Your task to perform on an android device: all mails in gmail Image 0: 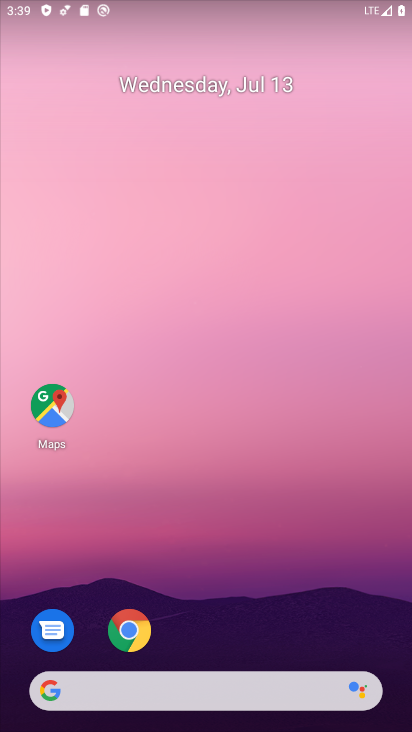
Step 0: drag from (288, 536) to (234, 110)
Your task to perform on an android device: all mails in gmail Image 1: 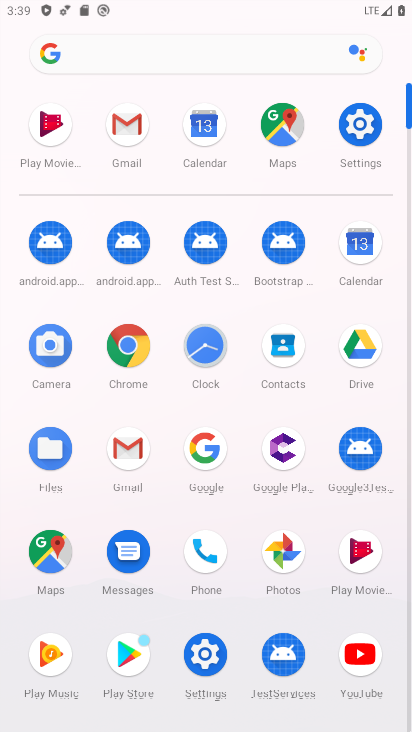
Step 1: click (126, 124)
Your task to perform on an android device: all mails in gmail Image 2: 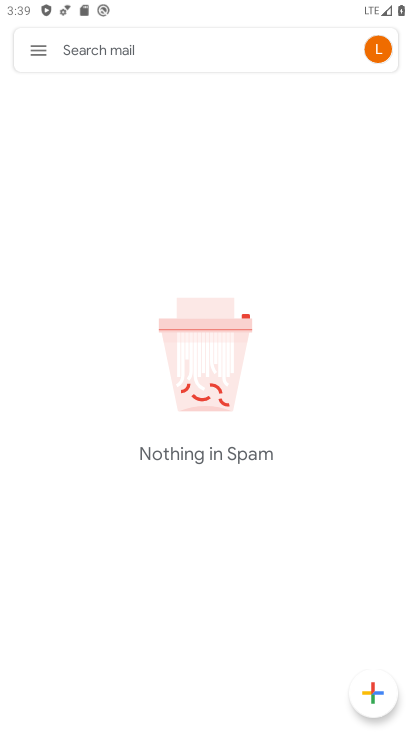
Step 2: click (32, 48)
Your task to perform on an android device: all mails in gmail Image 3: 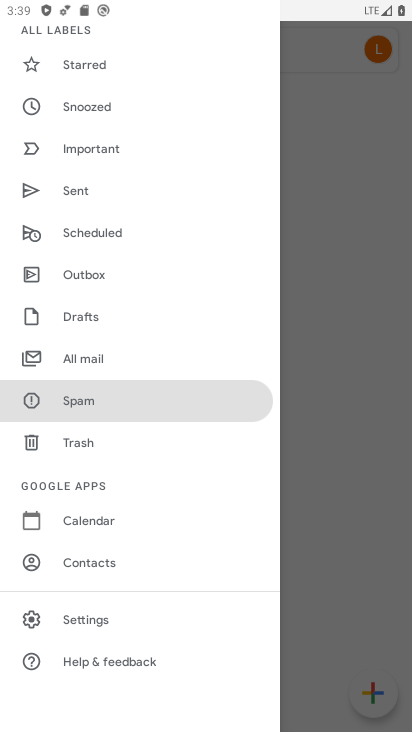
Step 3: click (70, 365)
Your task to perform on an android device: all mails in gmail Image 4: 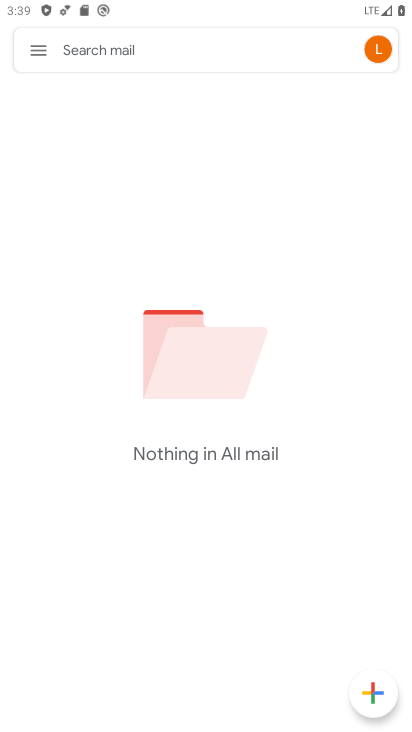
Step 4: task complete